Your task to perform on an android device: Show me recent news Image 0: 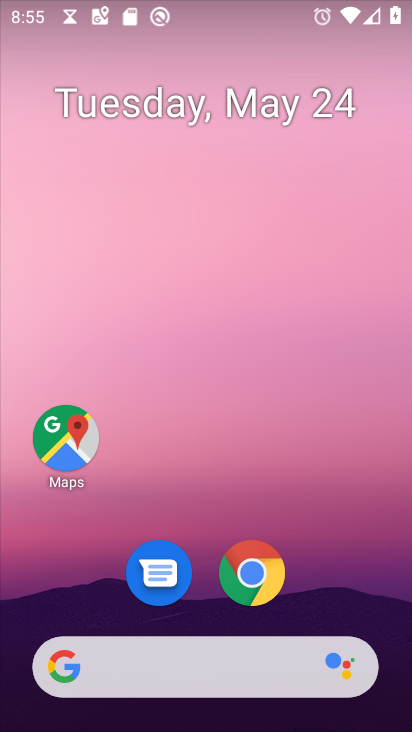
Step 0: drag from (376, 566) to (364, 4)
Your task to perform on an android device: Show me recent news Image 1: 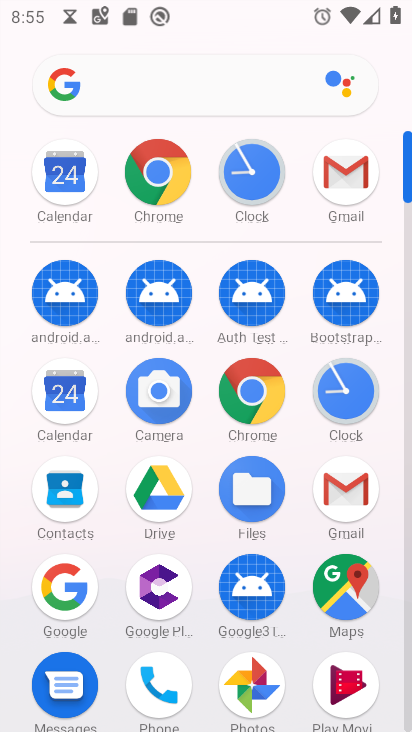
Step 1: click (247, 361)
Your task to perform on an android device: Show me recent news Image 2: 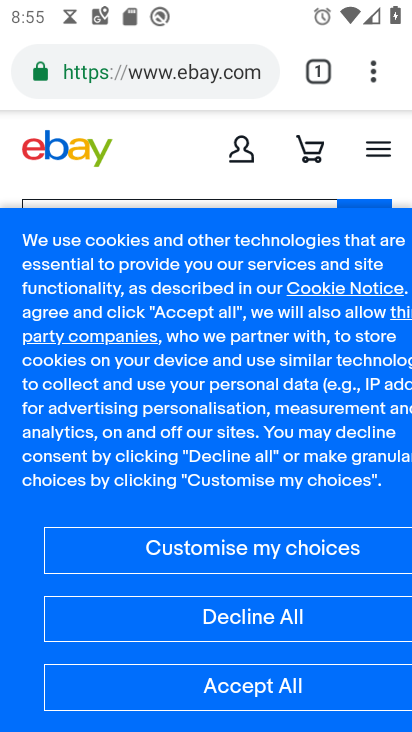
Step 2: task complete